Your task to perform on an android device: Add "macbook pro" to the cart on target, then select checkout. Image 0: 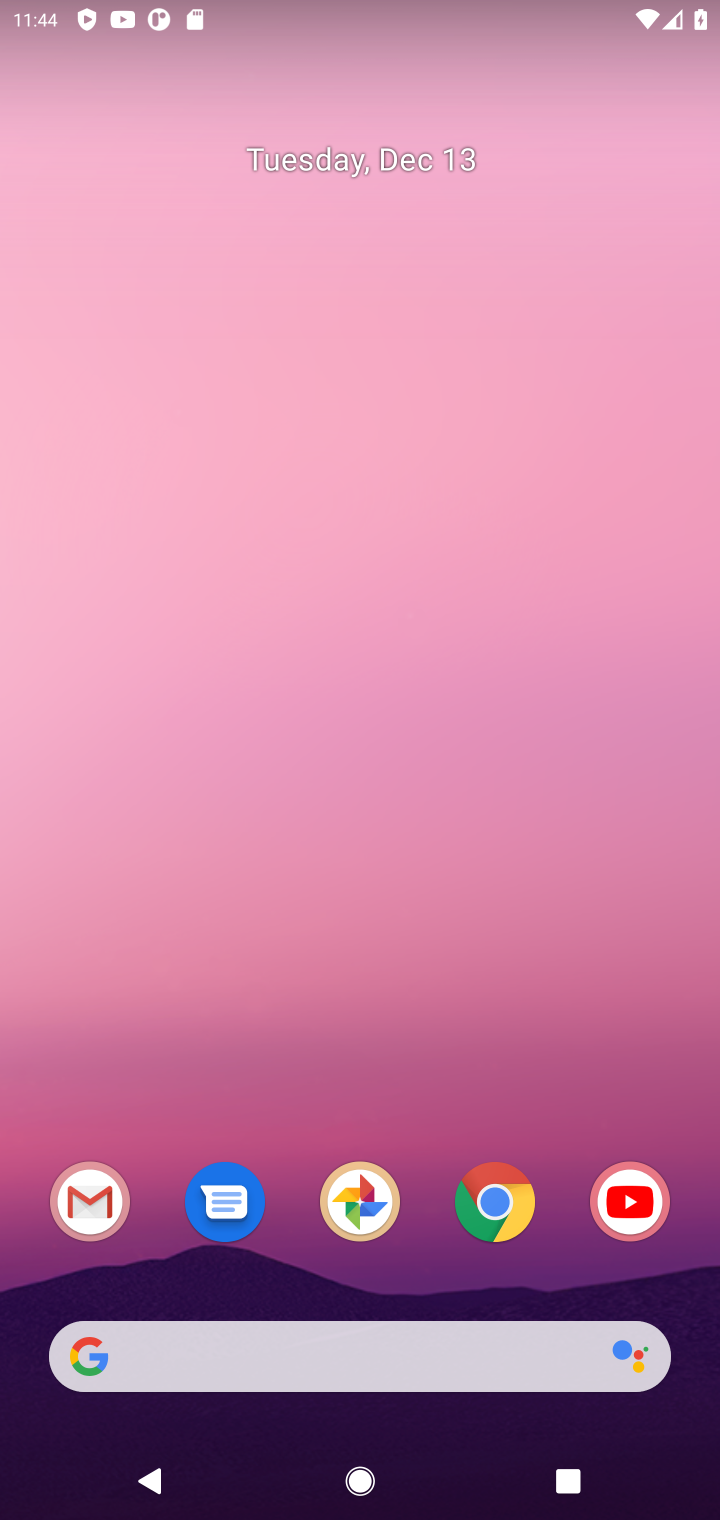
Step 0: click (480, 1215)
Your task to perform on an android device: Add "macbook pro" to the cart on target, then select checkout. Image 1: 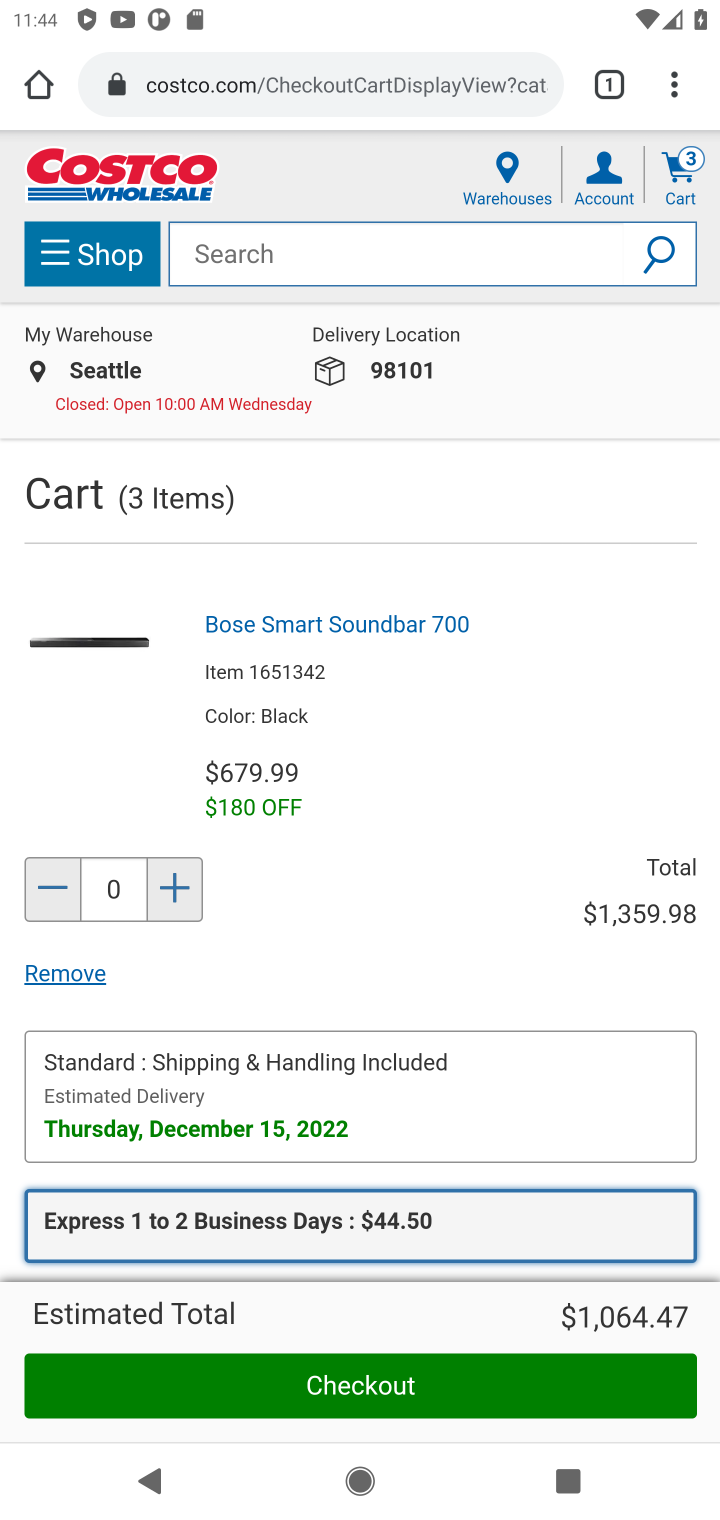
Step 1: click (280, 72)
Your task to perform on an android device: Add "macbook pro" to the cart on target, then select checkout. Image 2: 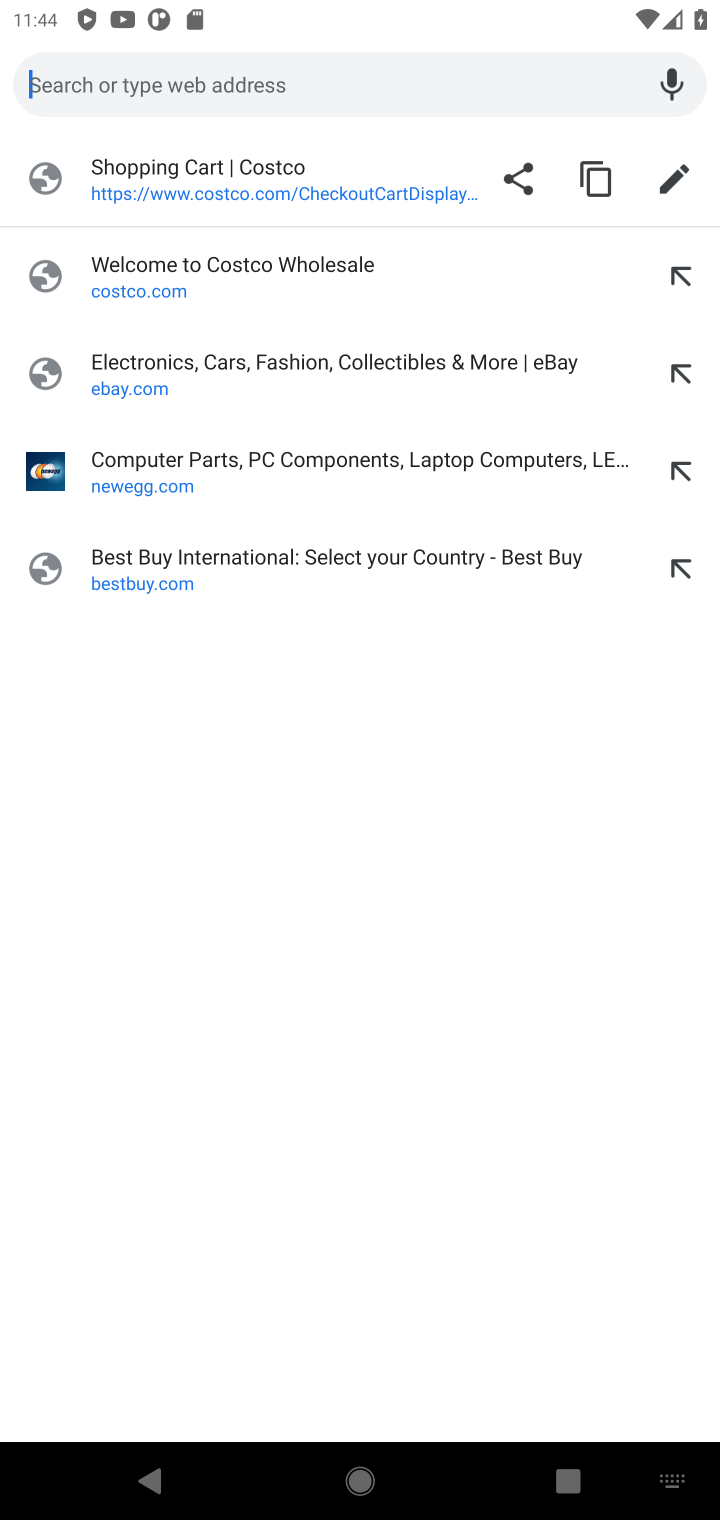
Step 2: type "target"
Your task to perform on an android device: Add "macbook pro" to the cart on target, then select checkout. Image 3: 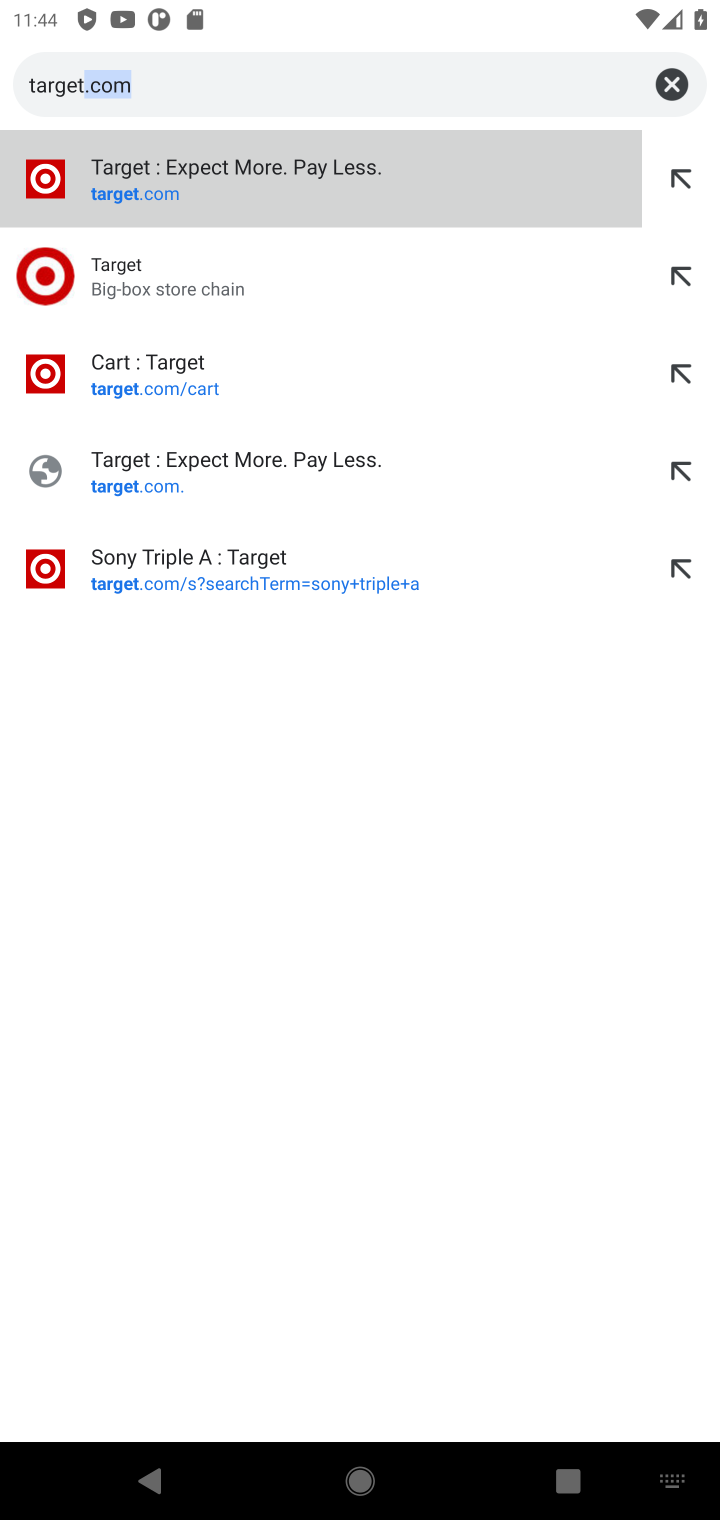
Step 3: click (190, 176)
Your task to perform on an android device: Add "macbook pro" to the cart on target, then select checkout. Image 4: 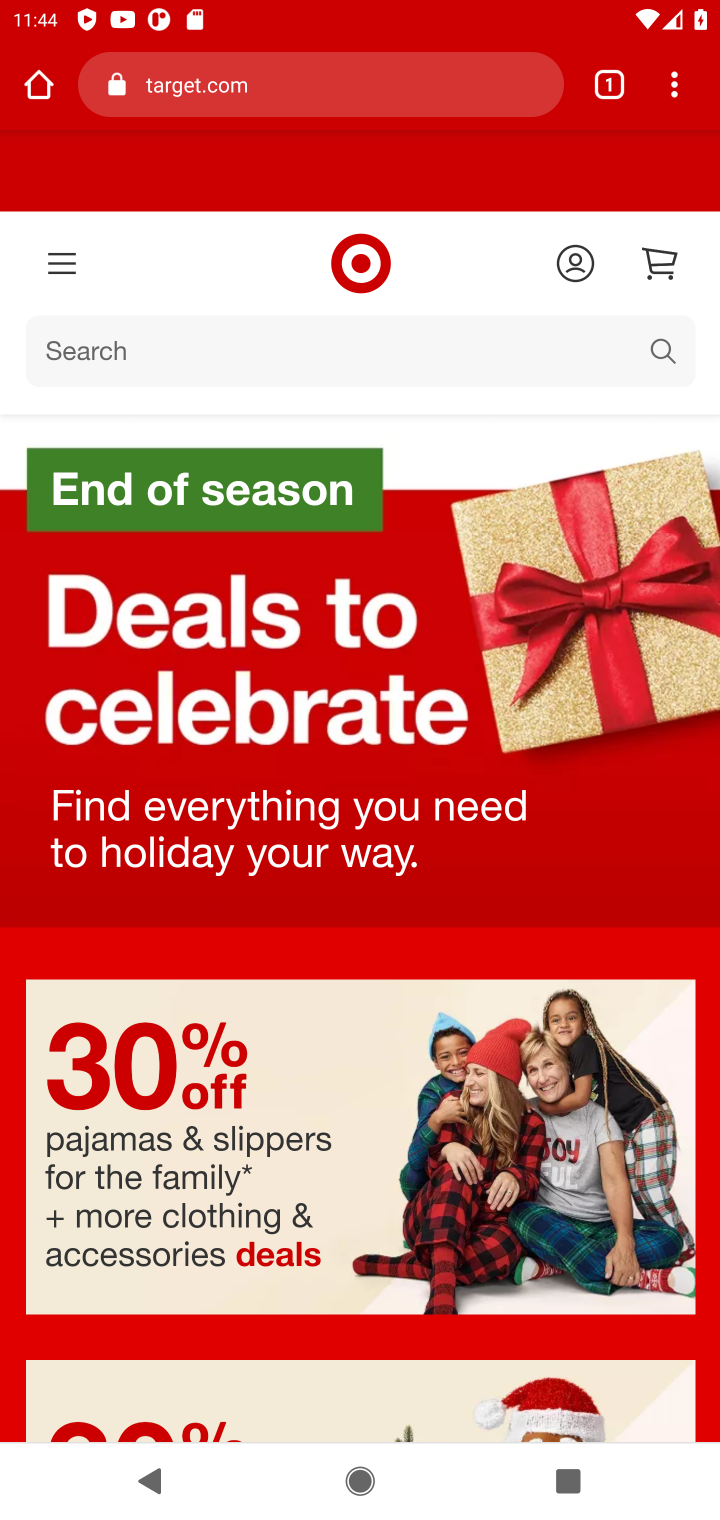
Step 4: click (405, 338)
Your task to perform on an android device: Add "macbook pro" to the cart on target, then select checkout. Image 5: 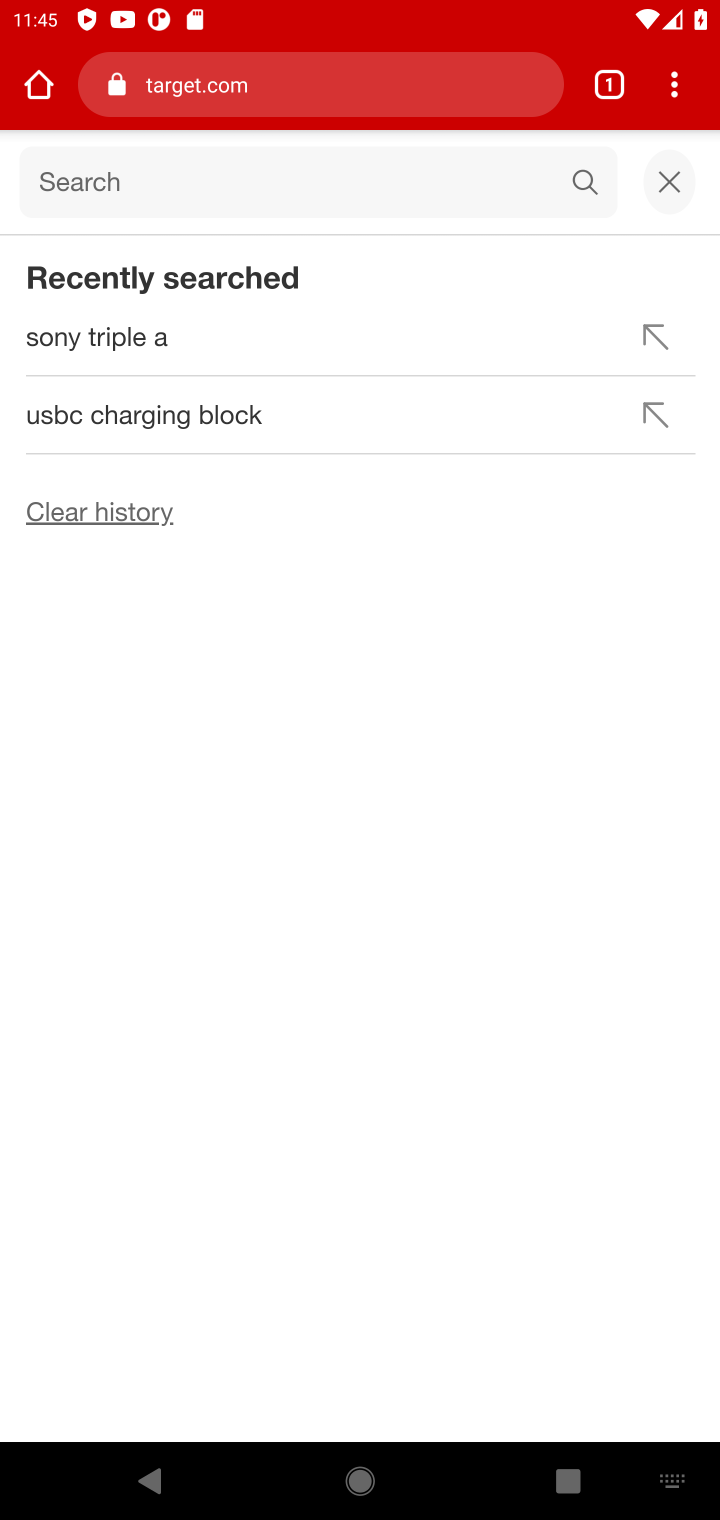
Step 5: type "macbook pro"
Your task to perform on an android device: Add "macbook pro" to the cart on target, then select checkout. Image 6: 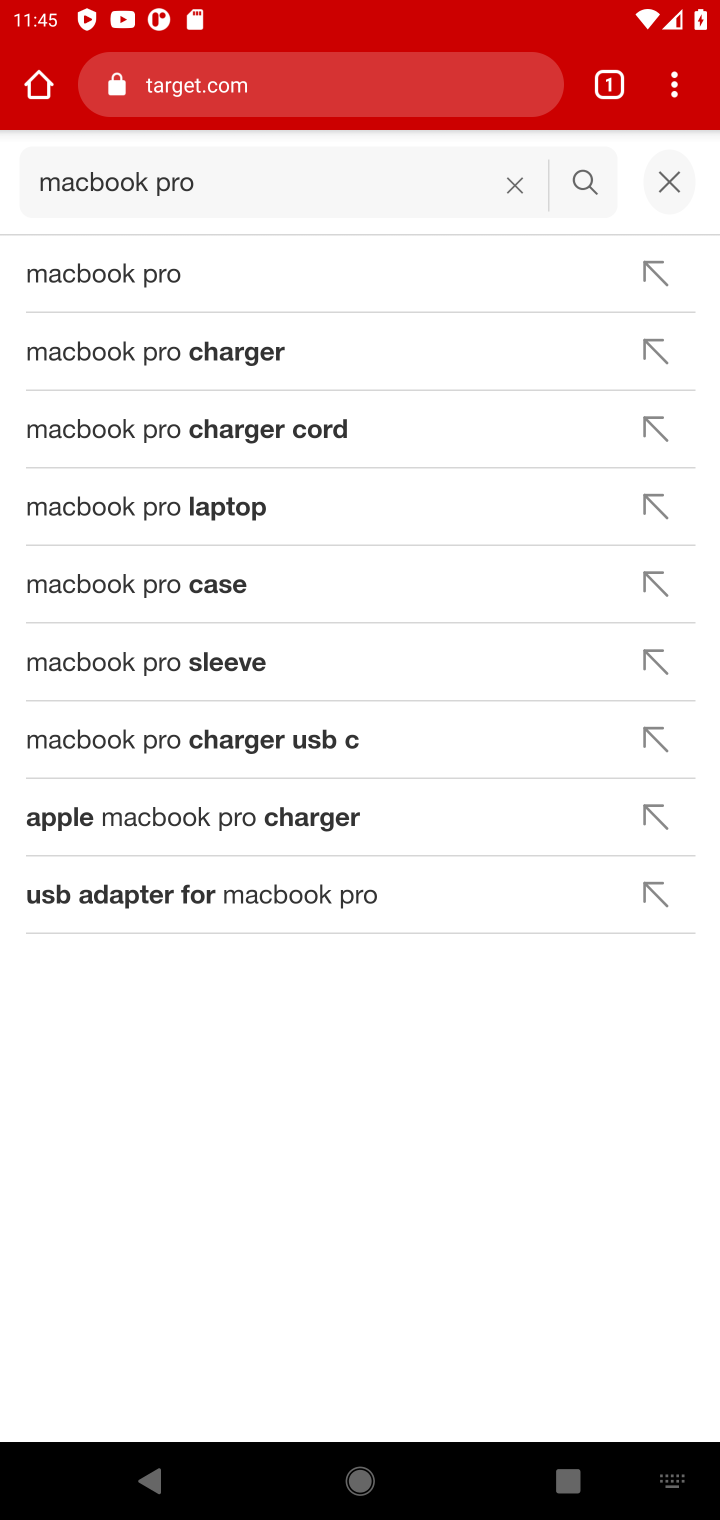
Step 6: click (146, 274)
Your task to perform on an android device: Add "macbook pro" to the cart on target, then select checkout. Image 7: 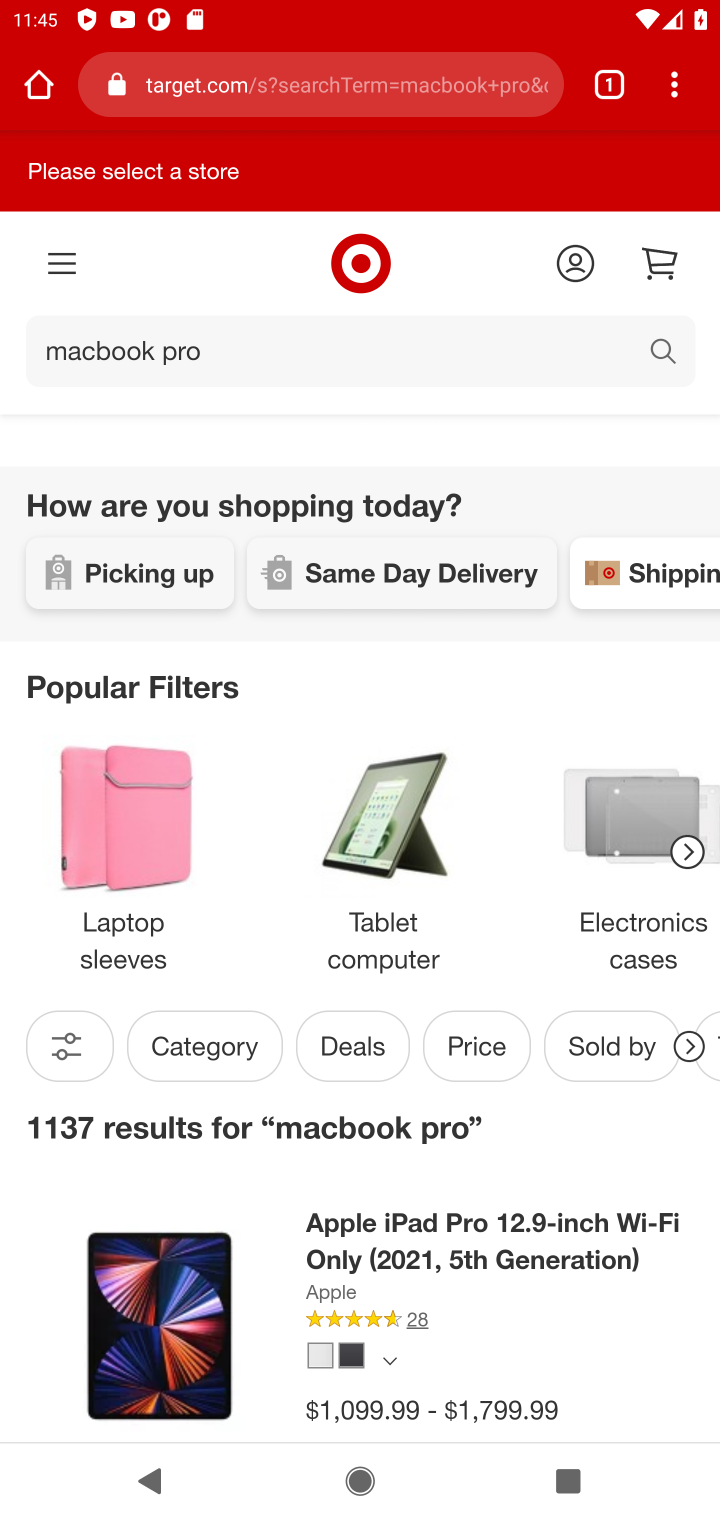
Step 7: click (491, 1230)
Your task to perform on an android device: Add "macbook pro" to the cart on target, then select checkout. Image 8: 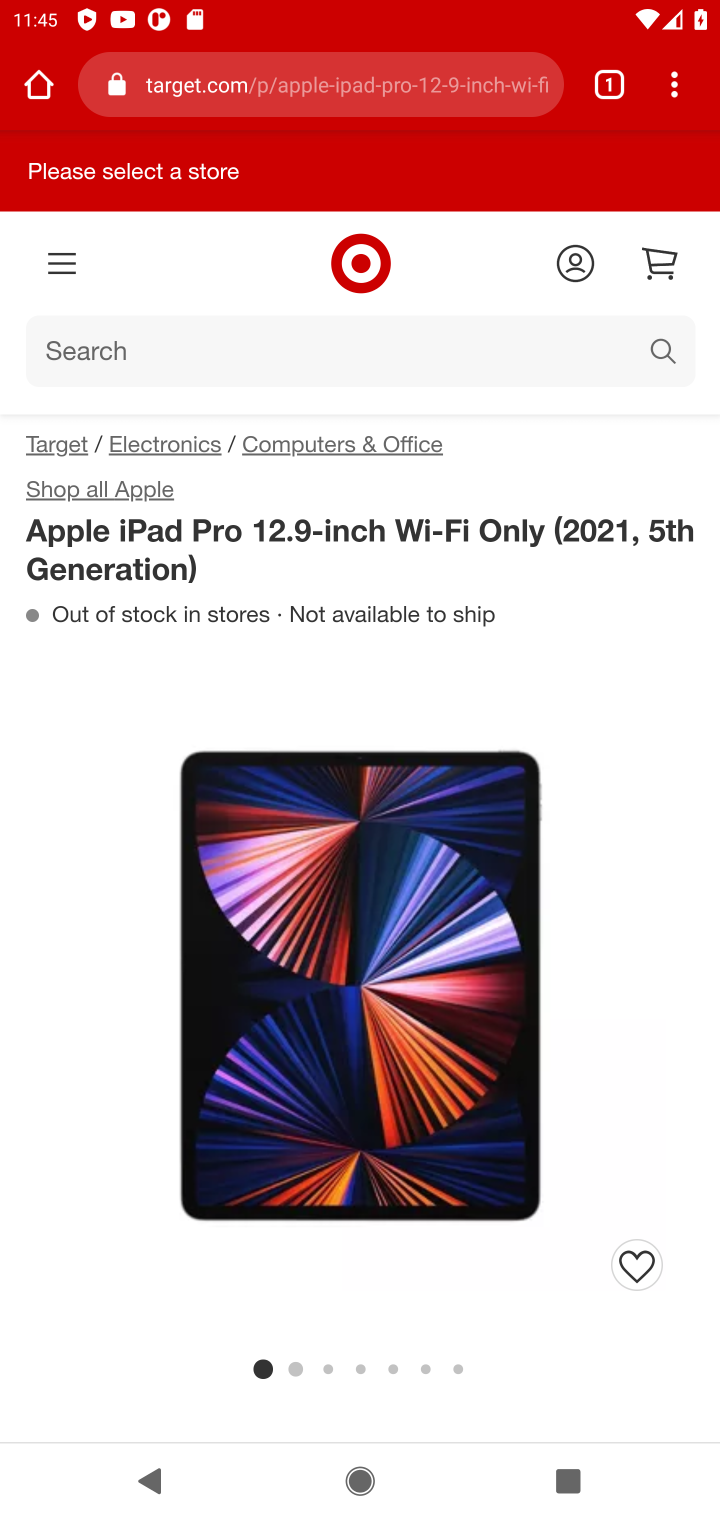
Step 8: drag from (589, 1346) to (499, 394)
Your task to perform on an android device: Add "macbook pro" to the cart on target, then select checkout. Image 9: 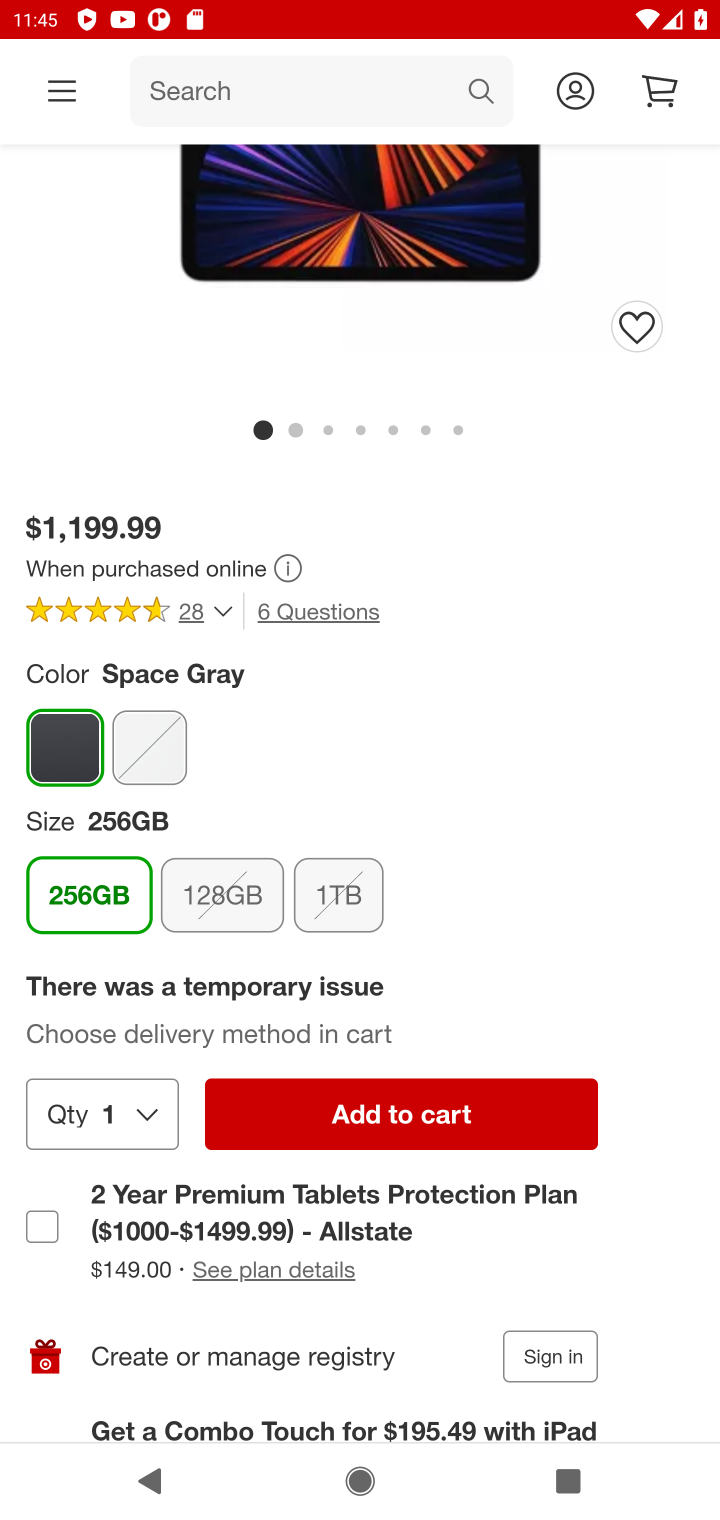
Step 9: click (471, 1116)
Your task to perform on an android device: Add "macbook pro" to the cart on target, then select checkout. Image 10: 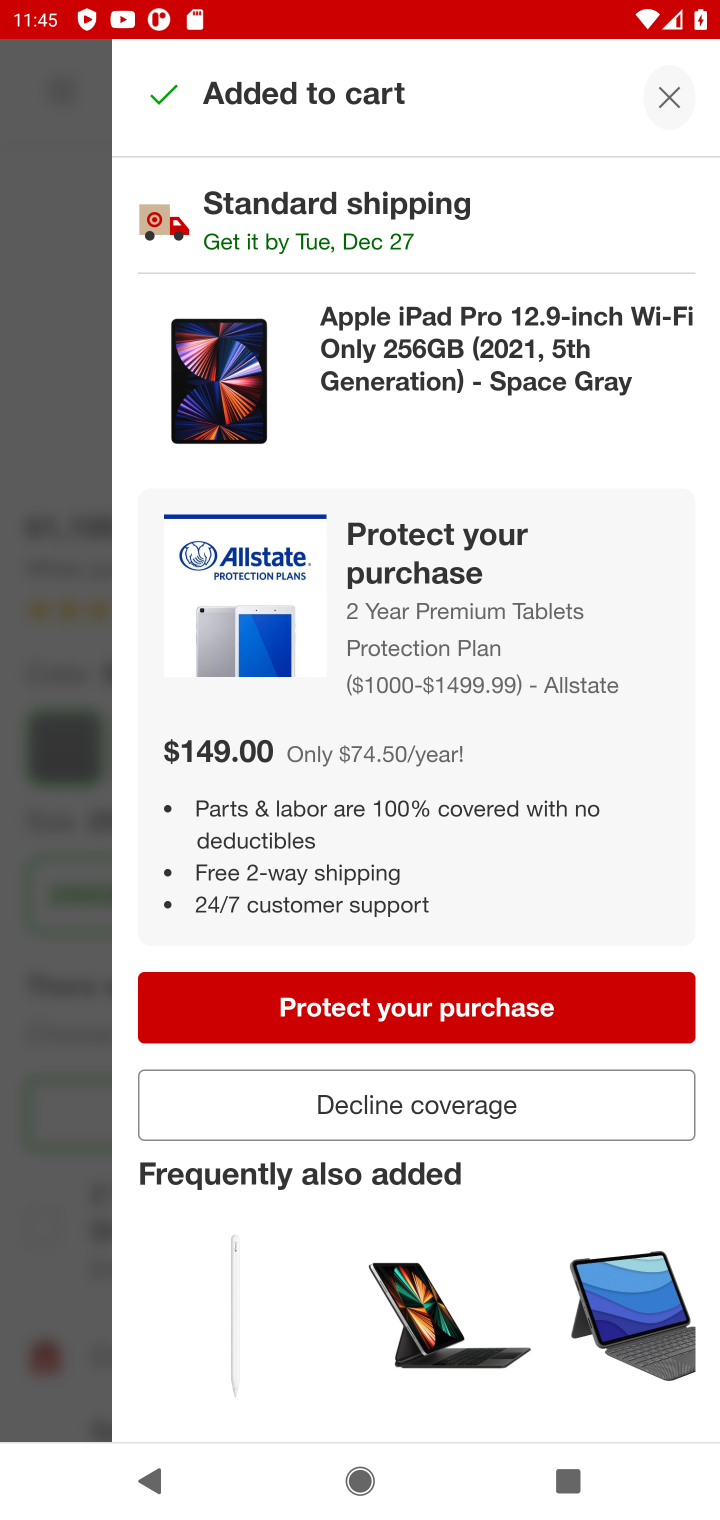
Step 10: click (377, 1106)
Your task to perform on an android device: Add "macbook pro" to the cart on target, then select checkout. Image 11: 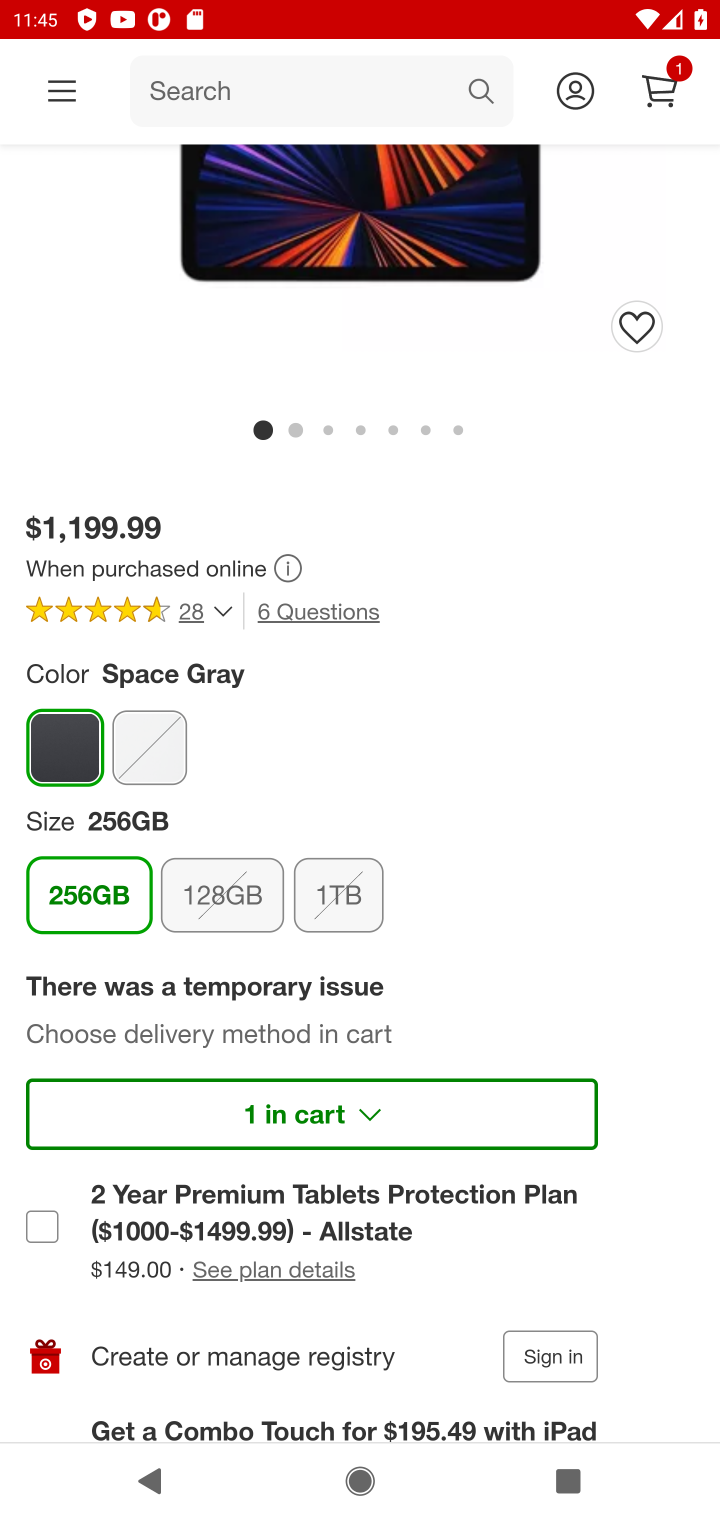
Step 11: click (653, 84)
Your task to perform on an android device: Add "macbook pro" to the cart on target, then select checkout. Image 12: 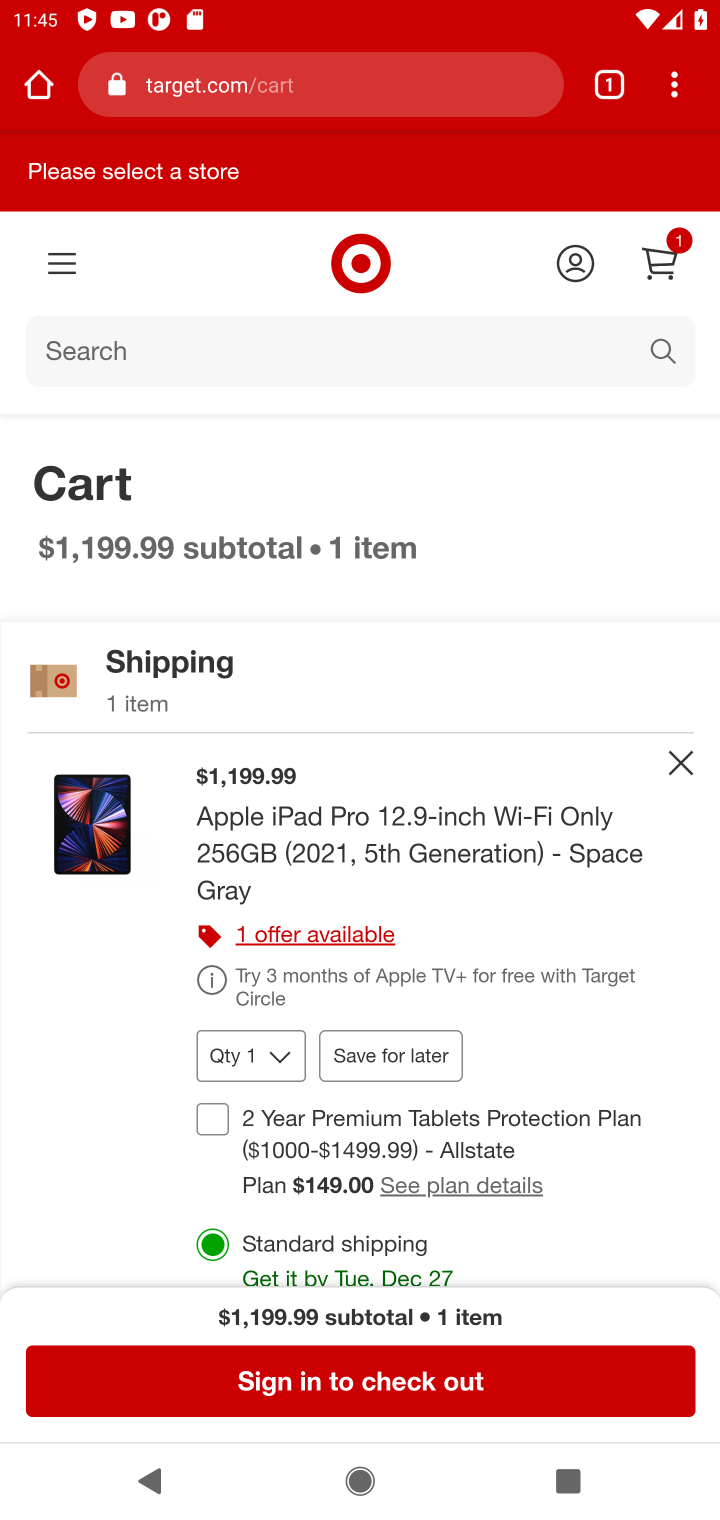
Step 12: click (405, 1371)
Your task to perform on an android device: Add "macbook pro" to the cart on target, then select checkout. Image 13: 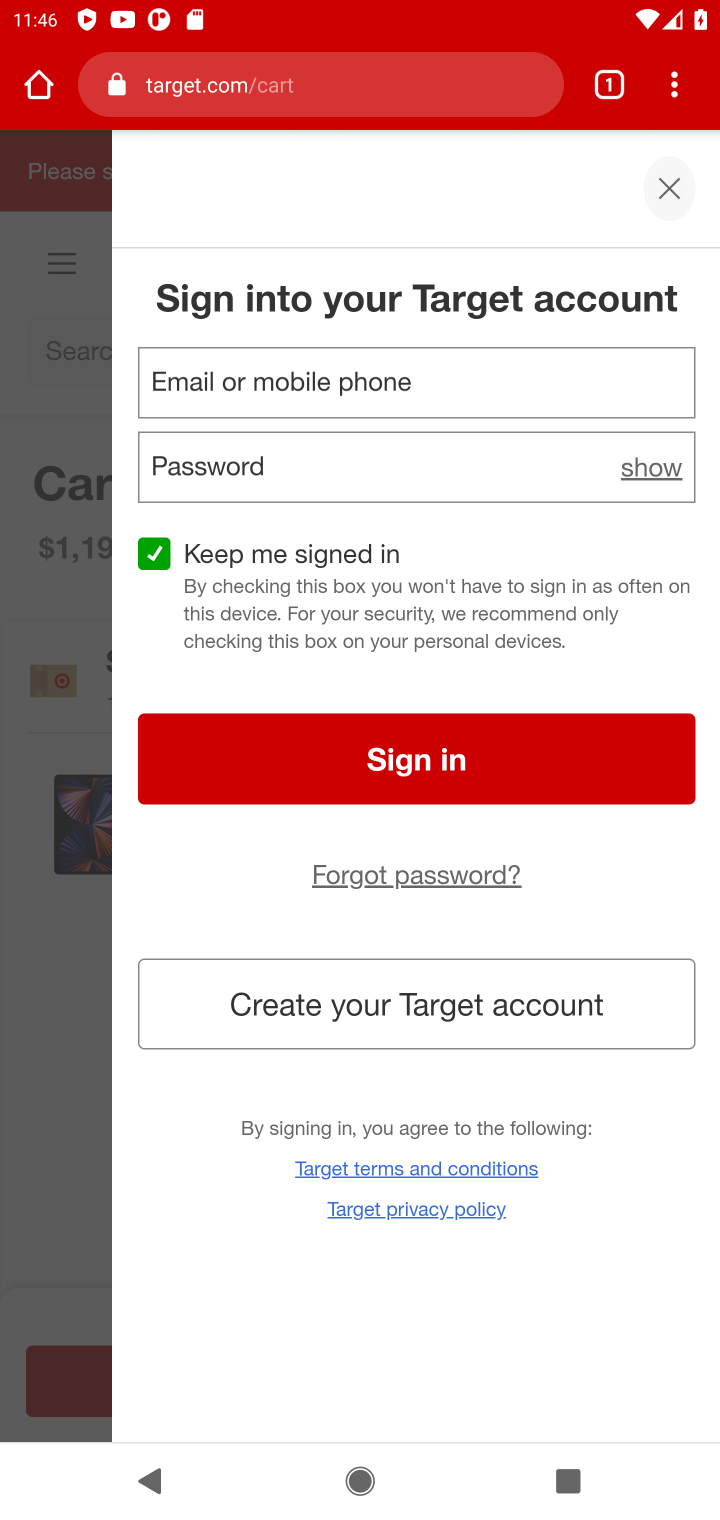
Step 13: task complete